Your task to perform on an android device: toggle data saver in the chrome app Image 0: 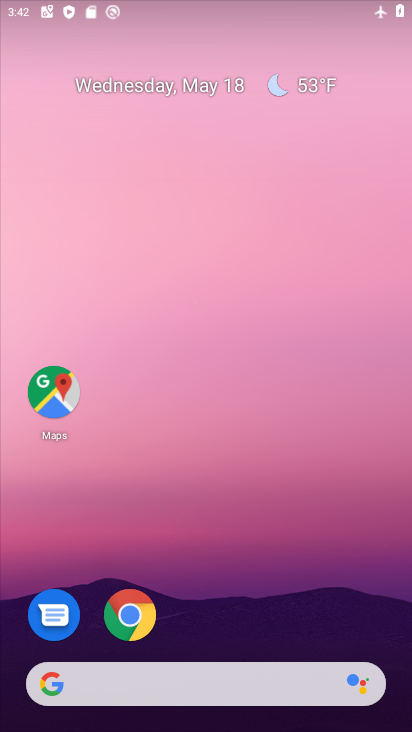
Step 0: drag from (326, 487) to (344, 111)
Your task to perform on an android device: toggle data saver in the chrome app Image 1: 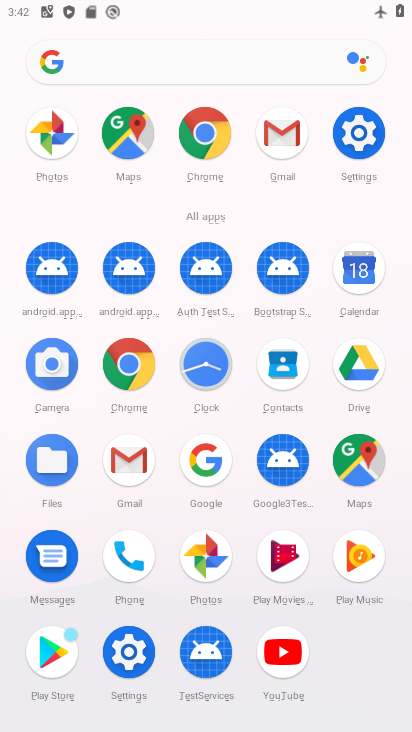
Step 1: click (349, 129)
Your task to perform on an android device: toggle data saver in the chrome app Image 2: 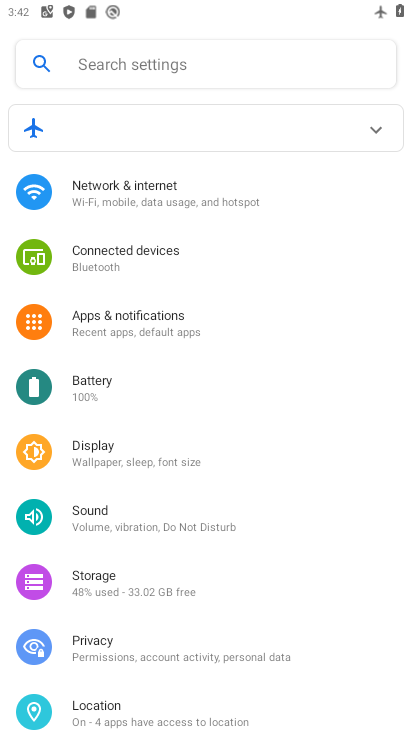
Step 2: click (122, 389)
Your task to perform on an android device: toggle data saver in the chrome app Image 3: 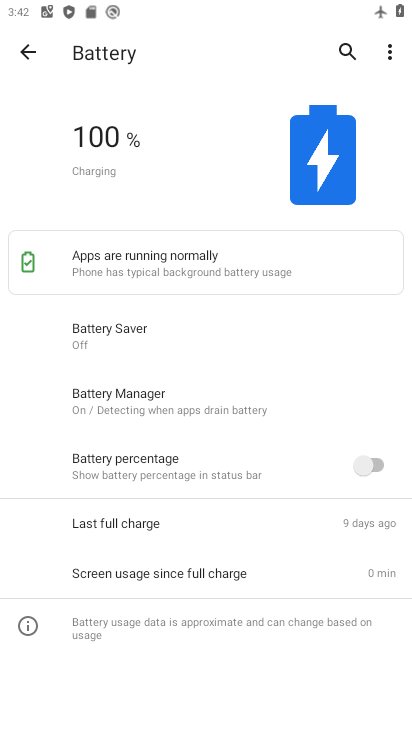
Step 3: press home button
Your task to perform on an android device: toggle data saver in the chrome app Image 4: 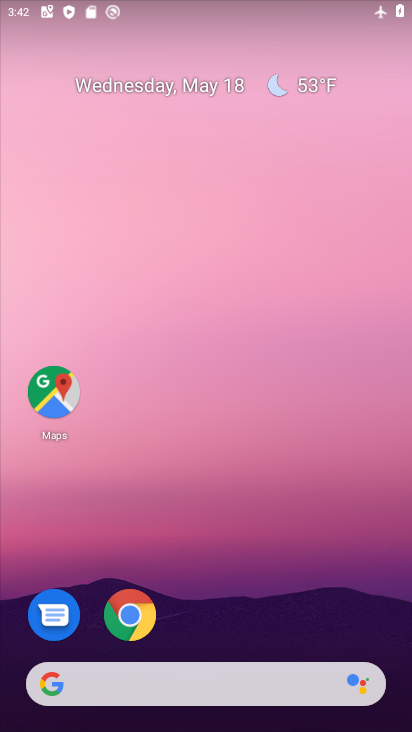
Step 4: click (130, 610)
Your task to perform on an android device: toggle data saver in the chrome app Image 5: 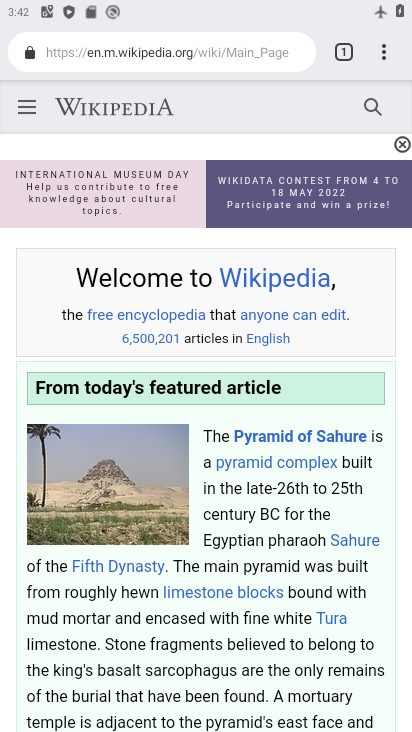
Step 5: drag from (385, 53) to (258, 570)
Your task to perform on an android device: toggle data saver in the chrome app Image 6: 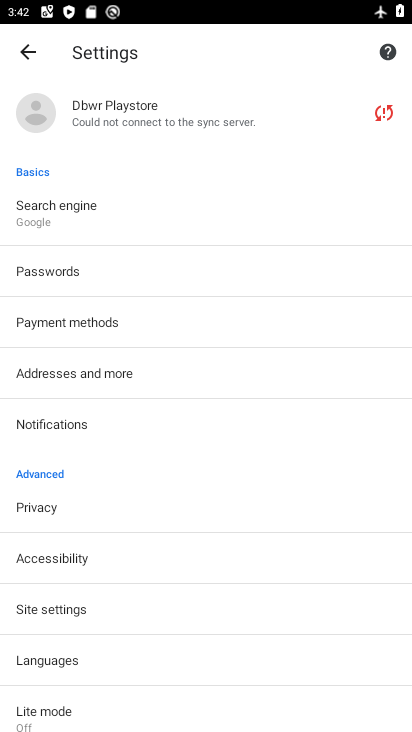
Step 6: drag from (149, 635) to (186, 295)
Your task to perform on an android device: toggle data saver in the chrome app Image 7: 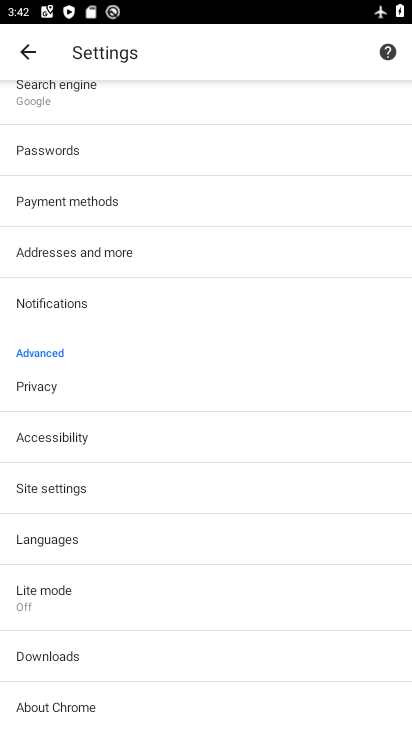
Step 7: click (70, 582)
Your task to perform on an android device: toggle data saver in the chrome app Image 8: 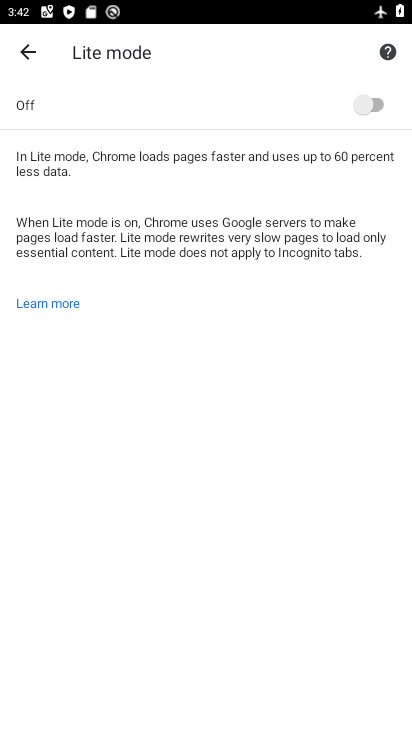
Step 8: click (371, 107)
Your task to perform on an android device: toggle data saver in the chrome app Image 9: 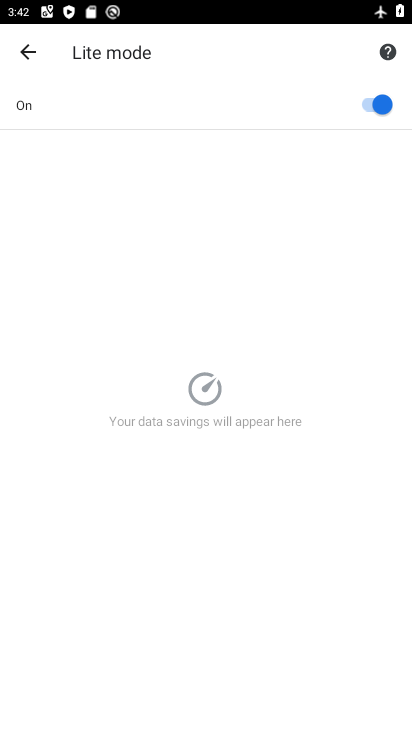
Step 9: click (371, 107)
Your task to perform on an android device: toggle data saver in the chrome app Image 10: 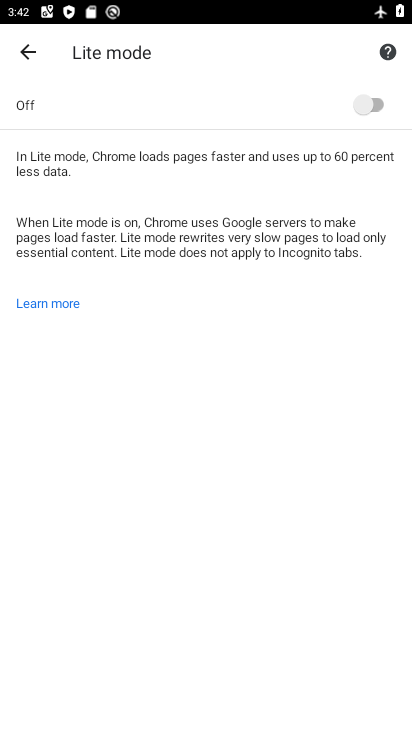
Step 10: click (371, 107)
Your task to perform on an android device: toggle data saver in the chrome app Image 11: 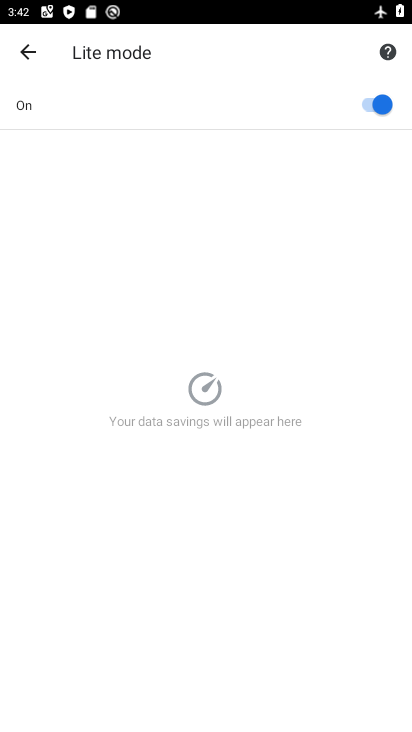
Step 11: task complete